Your task to perform on an android device: delete a single message in the gmail app Image 0: 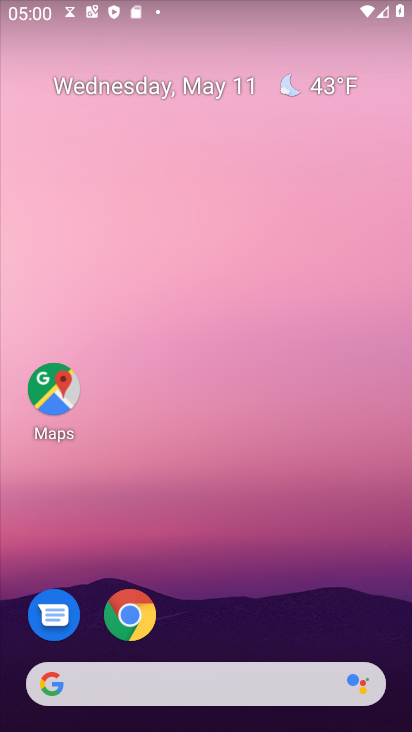
Step 0: drag from (240, 533) to (184, 16)
Your task to perform on an android device: delete a single message in the gmail app Image 1: 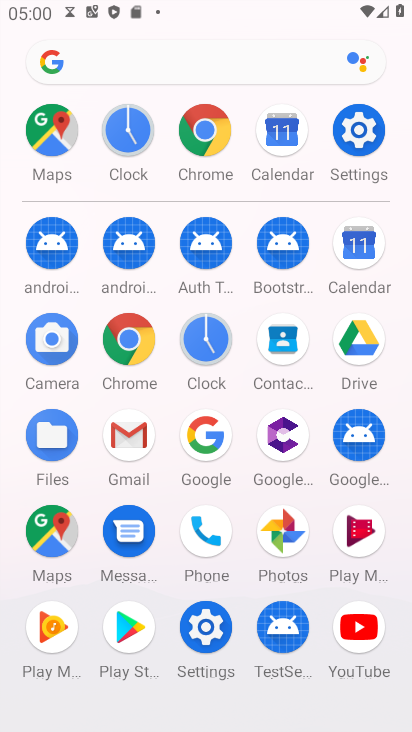
Step 1: click (128, 422)
Your task to perform on an android device: delete a single message in the gmail app Image 2: 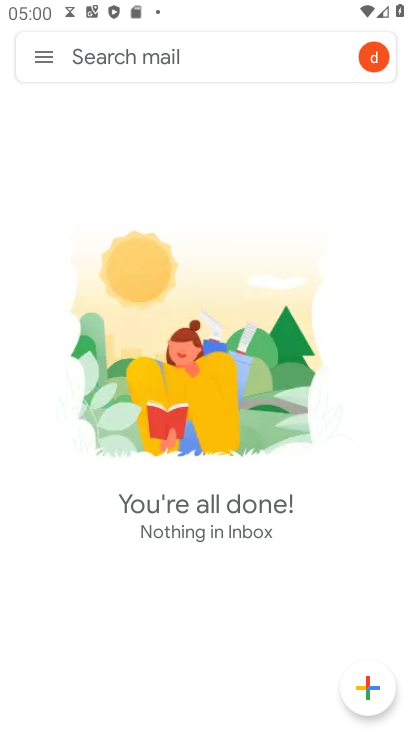
Step 2: click (35, 57)
Your task to perform on an android device: delete a single message in the gmail app Image 3: 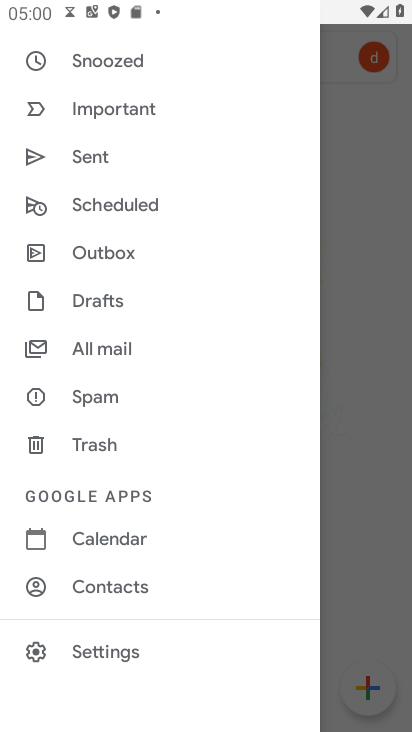
Step 3: drag from (166, 134) to (189, 558)
Your task to perform on an android device: delete a single message in the gmail app Image 4: 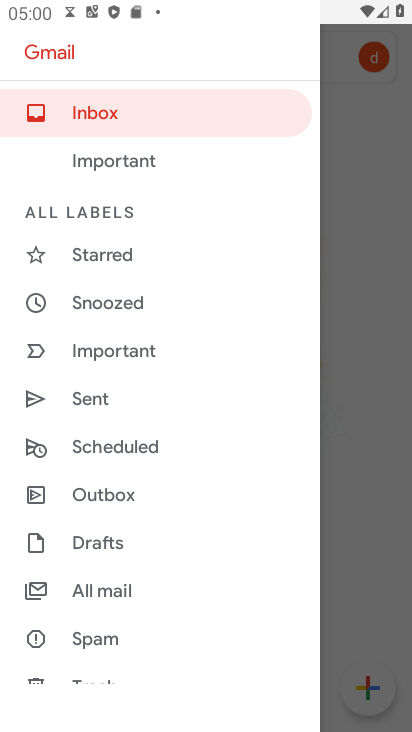
Step 4: click (142, 109)
Your task to perform on an android device: delete a single message in the gmail app Image 5: 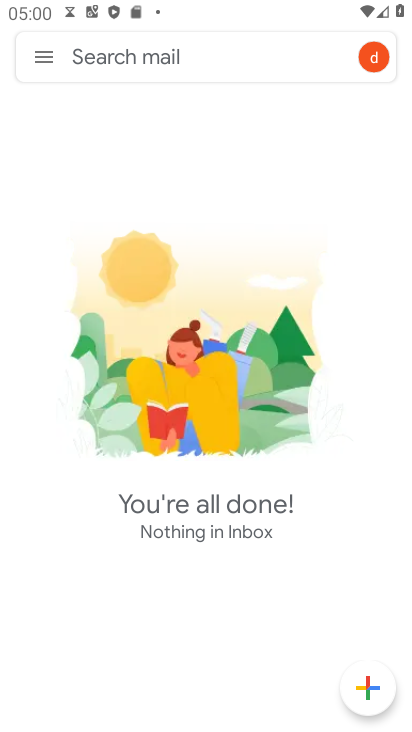
Step 5: click (33, 47)
Your task to perform on an android device: delete a single message in the gmail app Image 6: 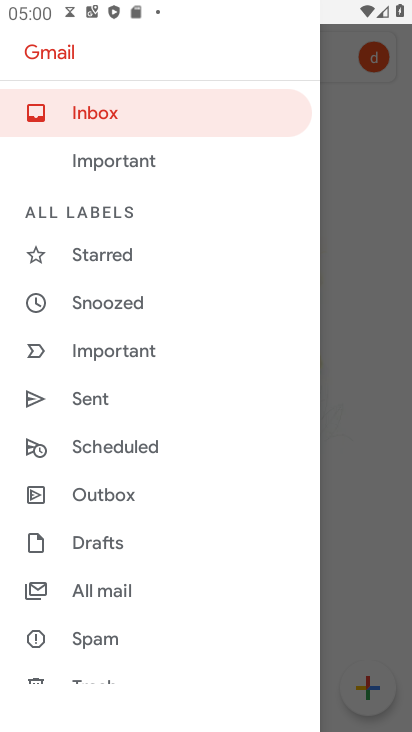
Step 6: click (117, 585)
Your task to perform on an android device: delete a single message in the gmail app Image 7: 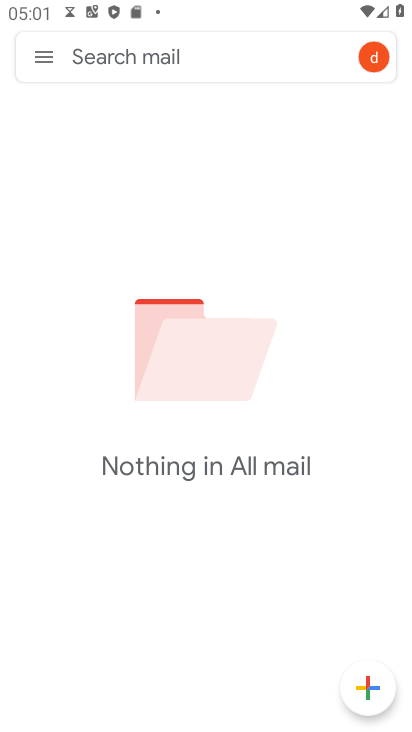
Step 7: task complete